Your task to perform on an android device: Do I have any events tomorrow? Image 0: 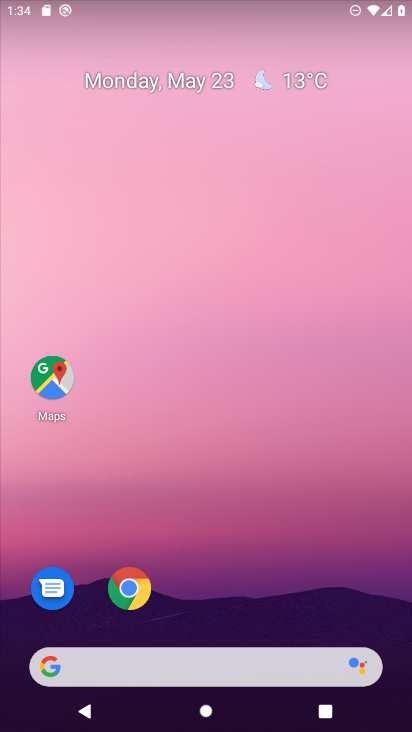
Step 0: drag from (101, 642) to (103, 135)
Your task to perform on an android device: Do I have any events tomorrow? Image 1: 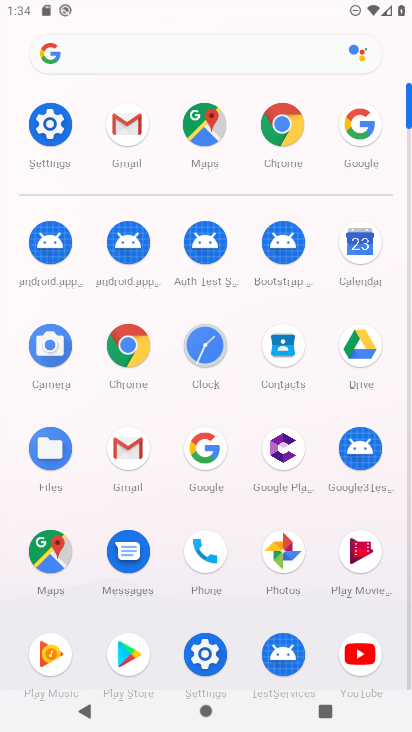
Step 1: click (357, 234)
Your task to perform on an android device: Do I have any events tomorrow? Image 2: 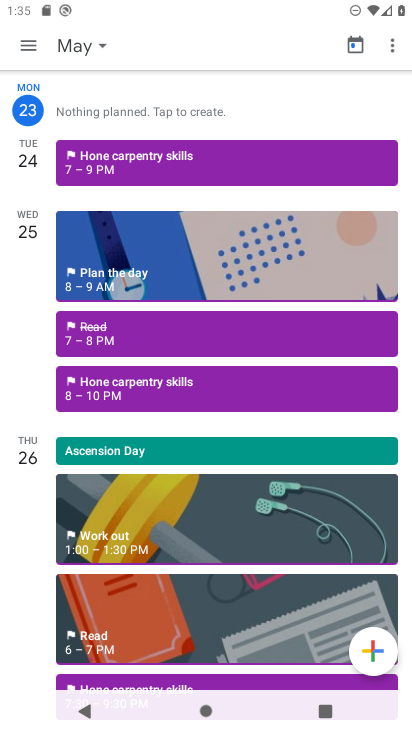
Step 2: click (31, 47)
Your task to perform on an android device: Do I have any events tomorrow? Image 3: 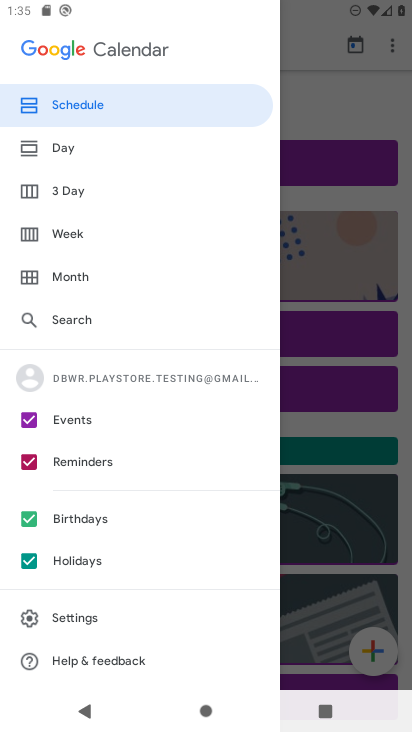
Step 3: click (345, 84)
Your task to perform on an android device: Do I have any events tomorrow? Image 4: 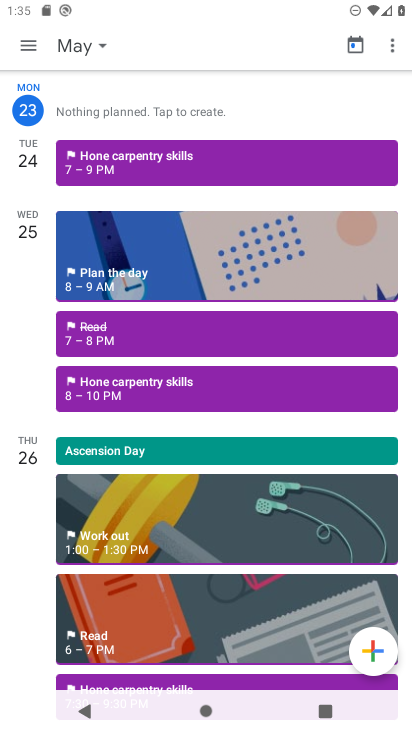
Step 4: click (84, 49)
Your task to perform on an android device: Do I have any events tomorrow? Image 5: 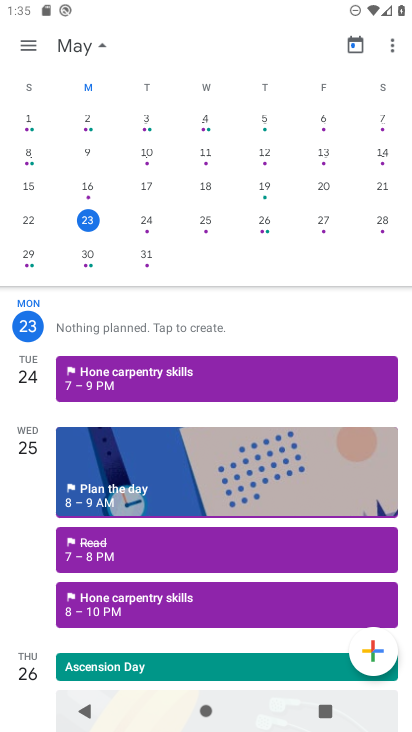
Step 5: click (150, 218)
Your task to perform on an android device: Do I have any events tomorrow? Image 6: 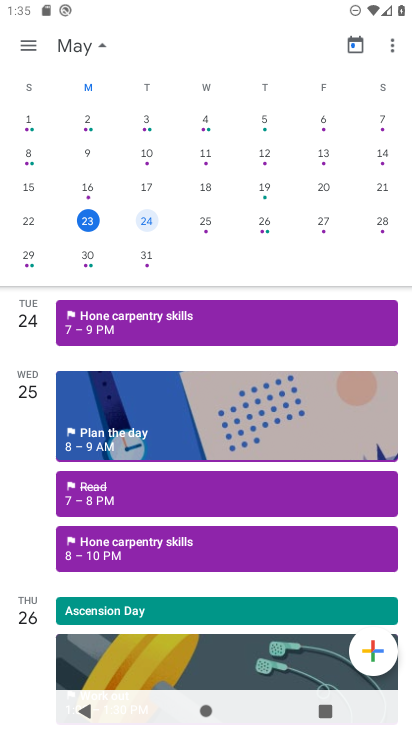
Step 6: click (157, 323)
Your task to perform on an android device: Do I have any events tomorrow? Image 7: 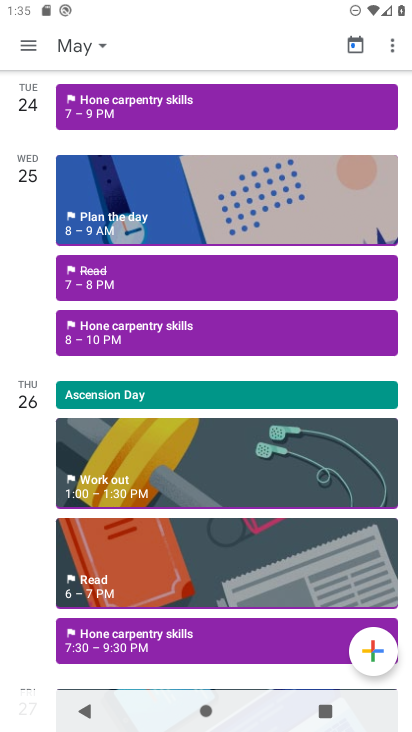
Step 7: click (131, 109)
Your task to perform on an android device: Do I have any events tomorrow? Image 8: 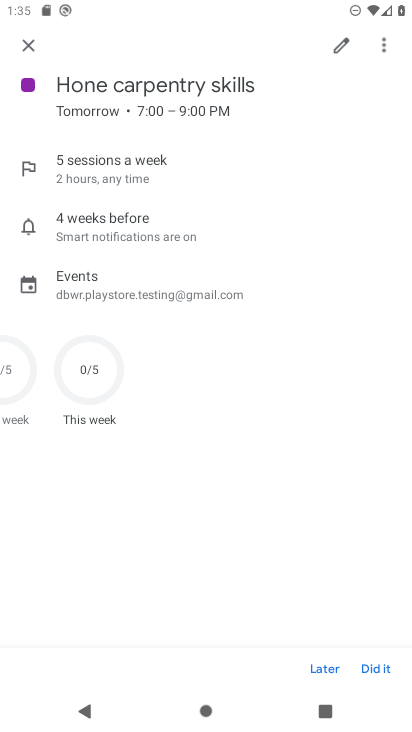
Step 8: task complete